Your task to perform on an android device: Search for seafood restaurants on Google Maps Image 0: 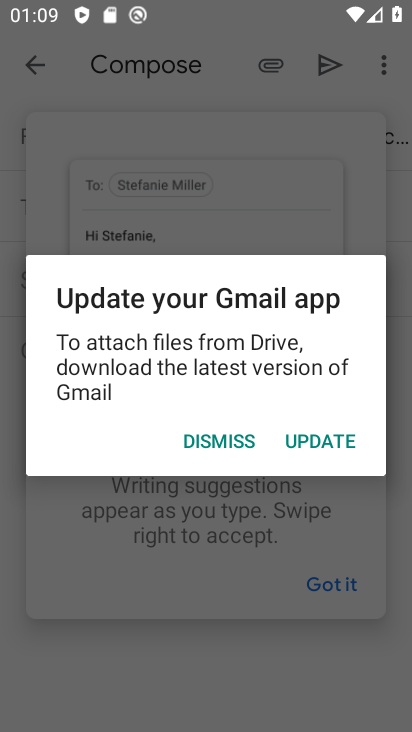
Step 0: press home button
Your task to perform on an android device: Search for seafood restaurants on Google Maps Image 1: 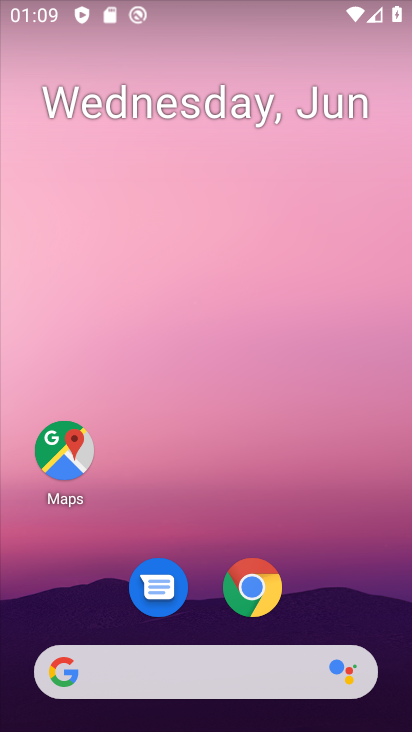
Step 1: click (78, 452)
Your task to perform on an android device: Search for seafood restaurants on Google Maps Image 2: 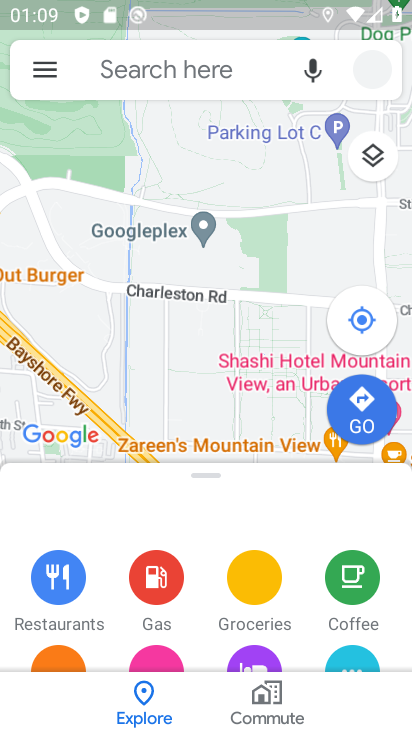
Step 2: click (187, 58)
Your task to perform on an android device: Search for seafood restaurants on Google Maps Image 3: 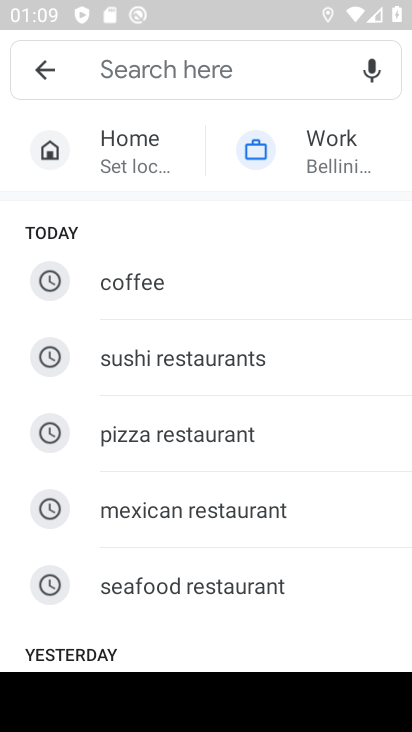
Step 3: type "seafood restaurants"
Your task to perform on an android device: Search for seafood restaurants on Google Maps Image 4: 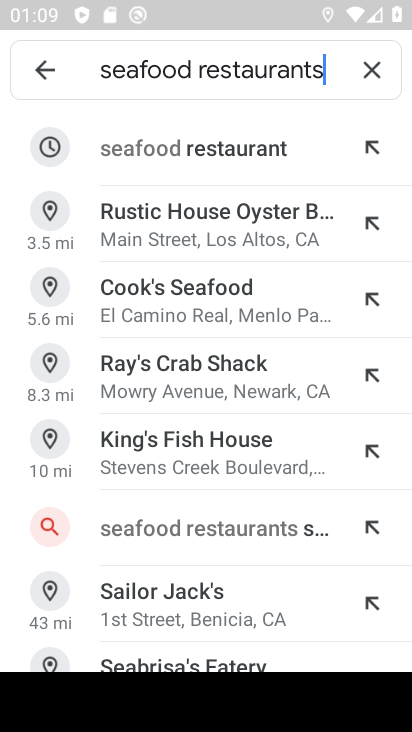
Step 4: press enter
Your task to perform on an android device: Search for seafood restaurants on Google Maps Image 5: 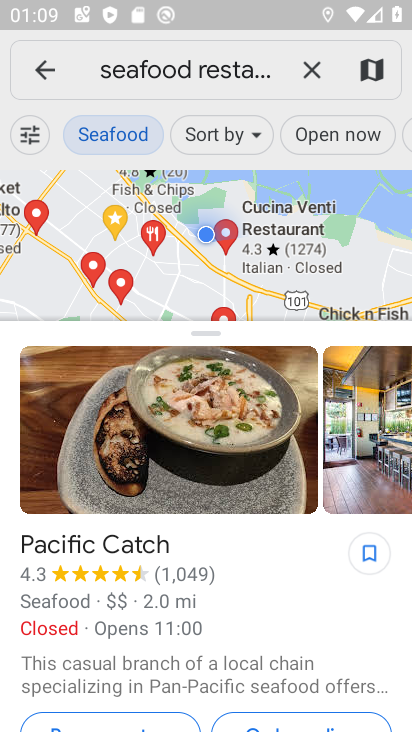
Step 5: task complete